Your task to perform on an android device: delete the emails in spam in the gmail app Image 0: 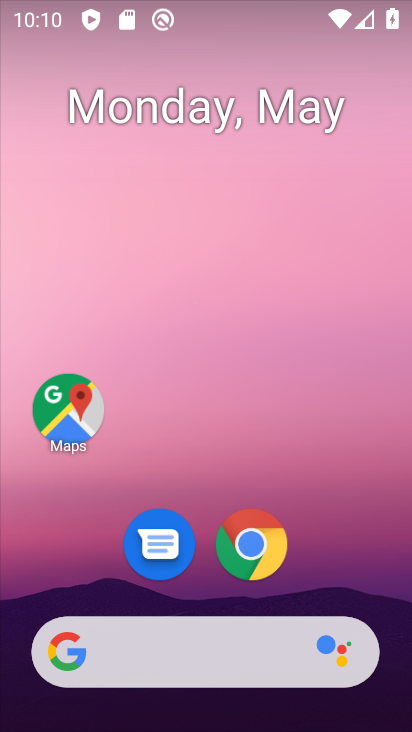
Step 0: drag from (334, 536) to (316, 104)
Your task to perform on an android device: delete the emails in spam in the gmail app Image 1: 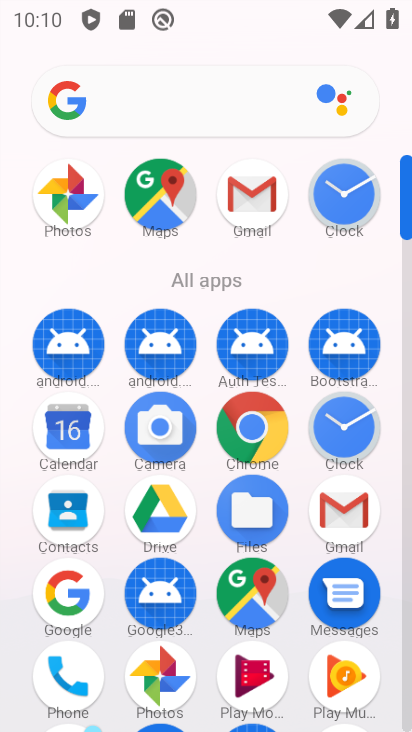
Step 1: click (360, 524)
Your task to perform on an android device: delete the emails in spam in the gmail app Image 2: 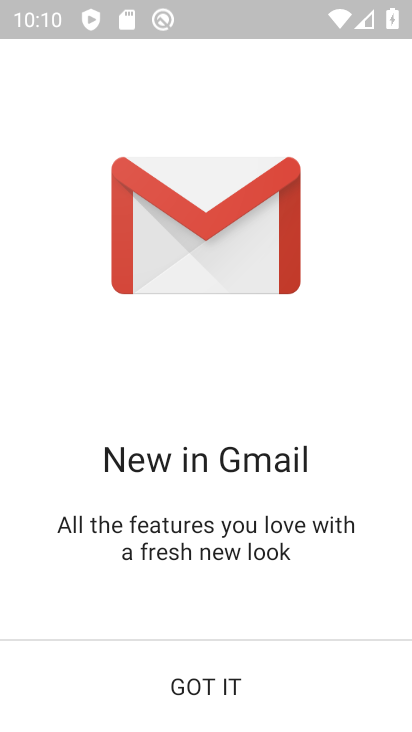
Step 2: click (282, 694)
Your task to perform on an android device: delete the emails in spam in the gmail app Image 3: 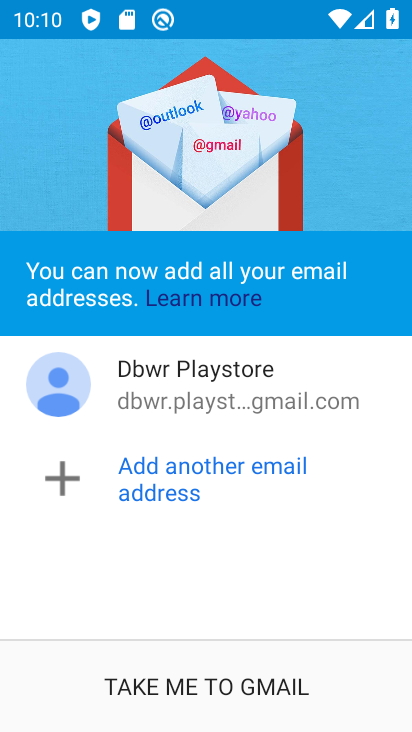
Step 3: click (282, 686)
Your task to perform on an android device: delete the emails in spam in the gmail app Image 4: 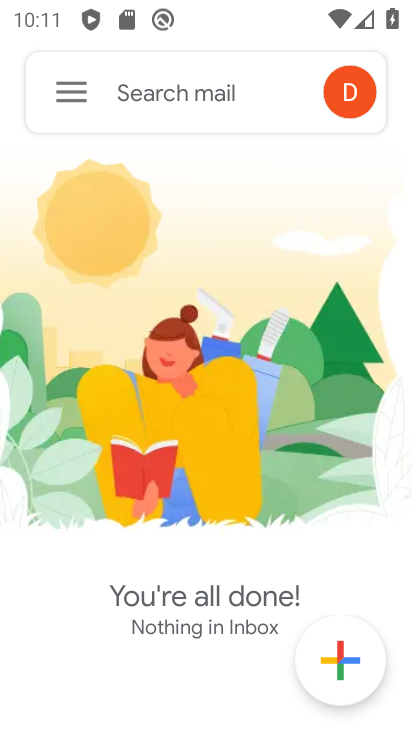
Step 4: click (71, 86)
Your task to perform on an android device: delete the emails in spam in the gmail app Image 5: 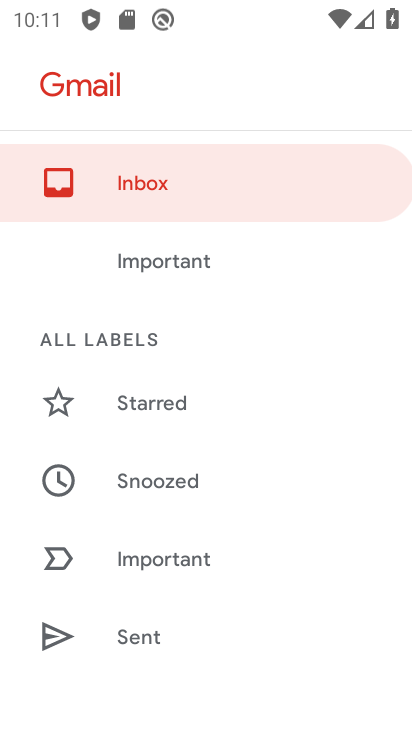
Step 5: drag from (185, 602) to (197, 141)
Your task to perform on an android device: delete the emails in spam in the gmail app Image 6: 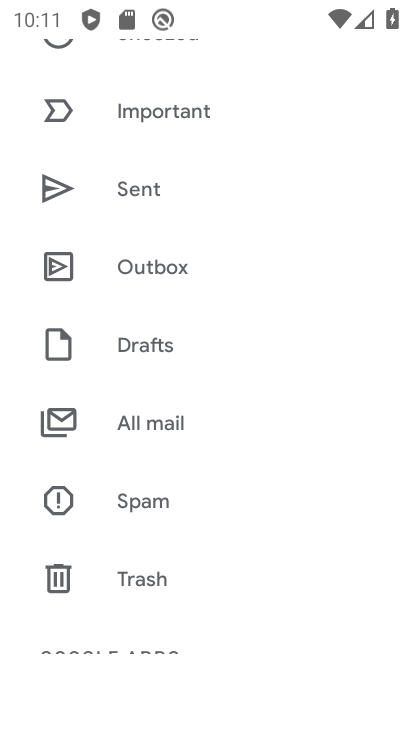
Step 6: click (186, 508)
Your task to perform on an android device: delete the emails in spam in the gmail app Image 7: 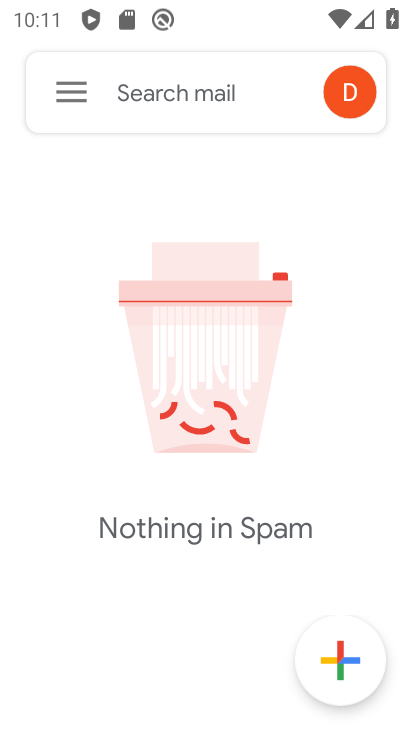
Step 7: task complete